Your task to perform on an android device: Check the news Image 0: 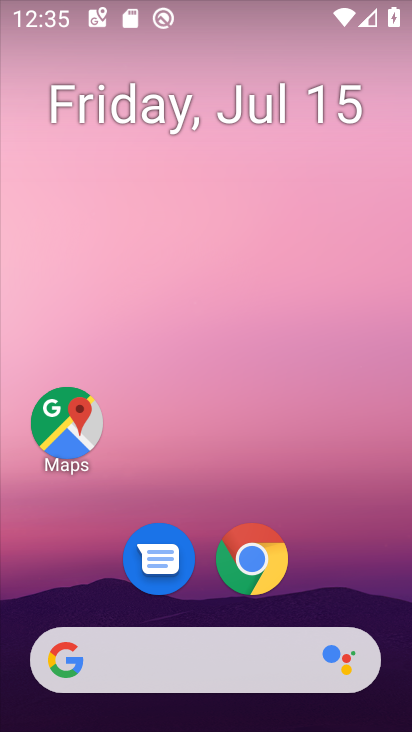
Step 0: drag from (14, 250) to (403, 382)
Your task to perform on an android device: Check the news Image 1: 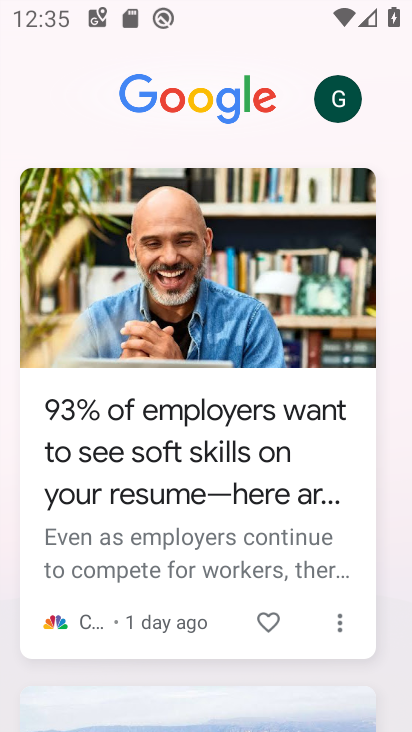
Step 1: task complete